Your task to perform on an android device: Open internet settings Image 0: 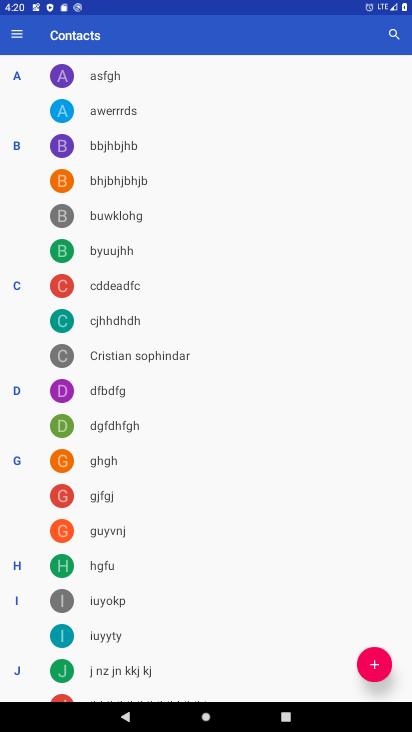
Step 0: press home button
Your task to perform on an android device: Open internet settings Image 1: 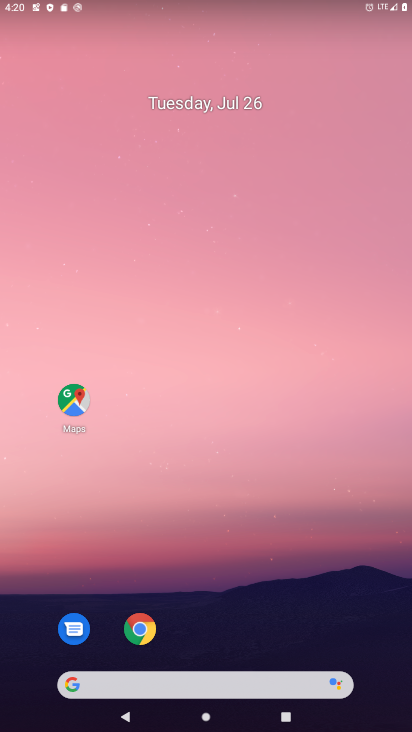
Step 1: drag from (220, 693) to (231, 75)
Your task to perform on an android device: Open internet settings Image 2: 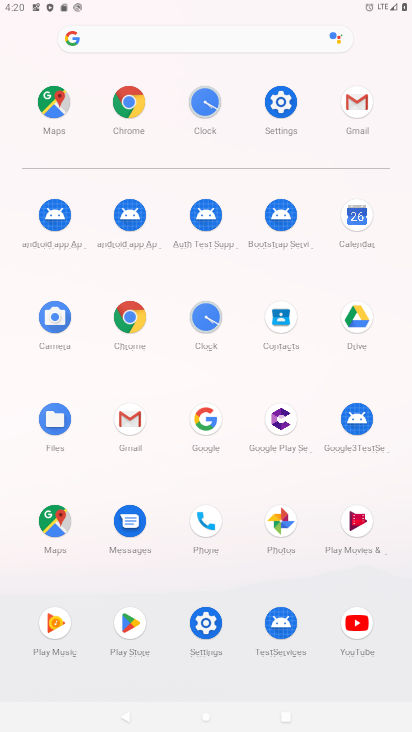
Step 2: click (285, 91)
Your task to perform on an android device: Open internet settings Image 3: 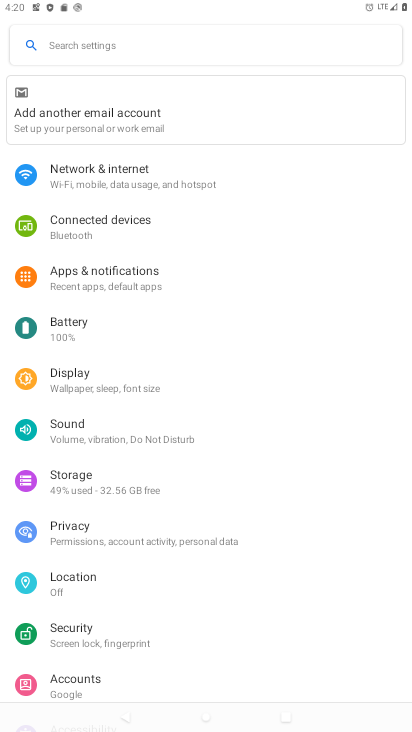
Step 3: click (121, 172)
Your task to perform on an android device: Open internet settings Image 4: 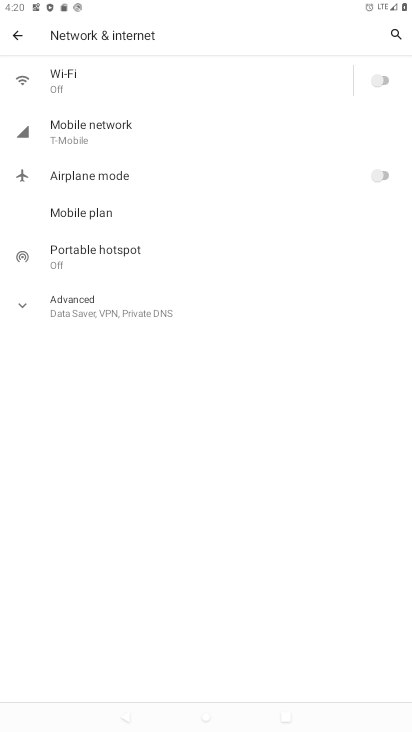
Step 4: task complete